Your task to perform on an android device: Open sound settings Image 0: 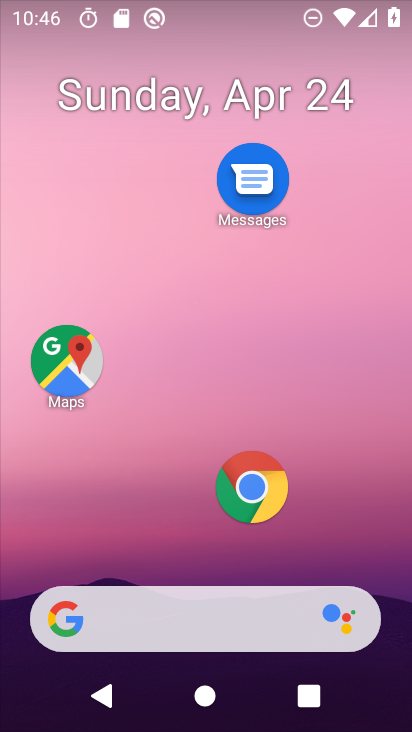
Step 0: drag from (174, 396) to (297, 434)
Your task to perform on an android device: Open sound settings Image 1: 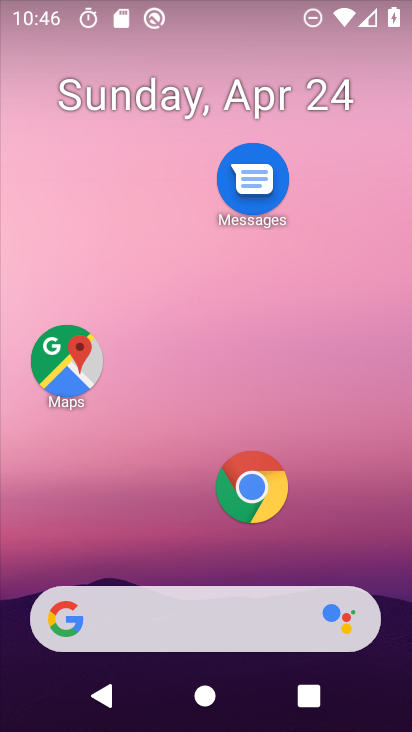
Step 1: drag from (167, 403) to (344, 9)
Your task to perform on an android device: Open sound settings Image 2: 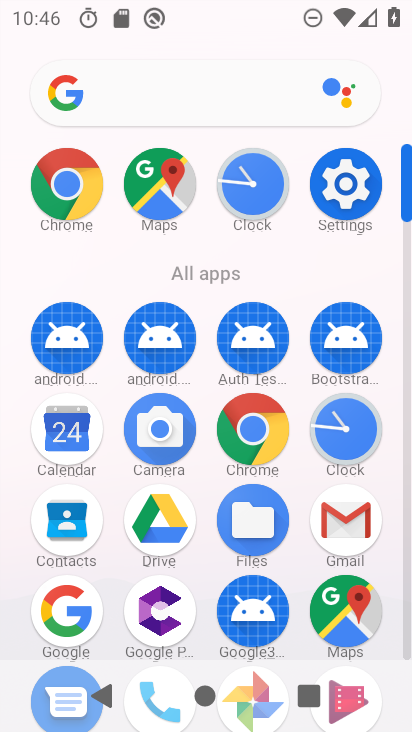
Step 2: click (345, 354)
Your task to perform on an android device: Open sound settings Image 3: 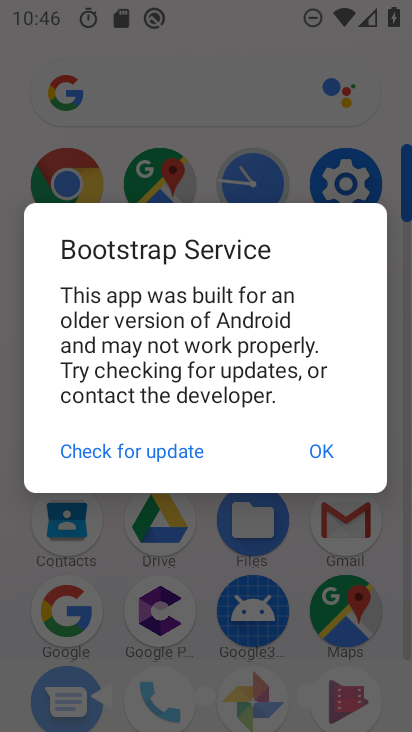
Step 3: click (360, 203)
Your task to perform on an android device: Open sound settings Image 4: 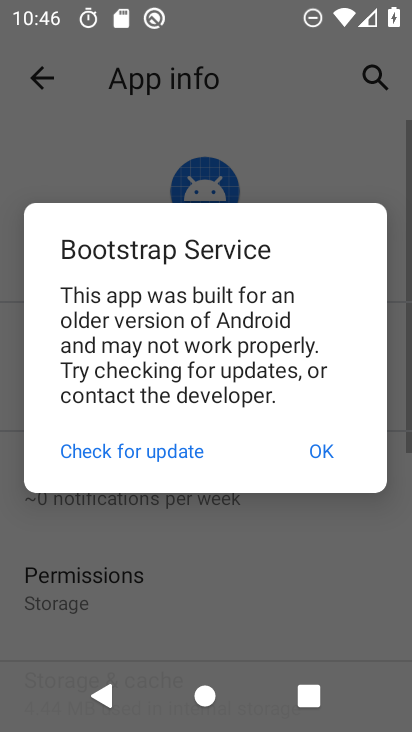
Step 4: press home button
Your task to perform on an android device: Open sound settings Image 5: 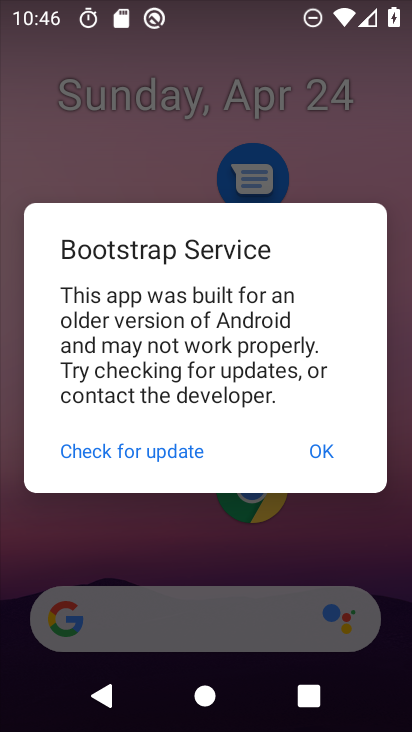
Step 5: click (321, 440)
Your task to perform on an android device: Open sound settings Image 6: 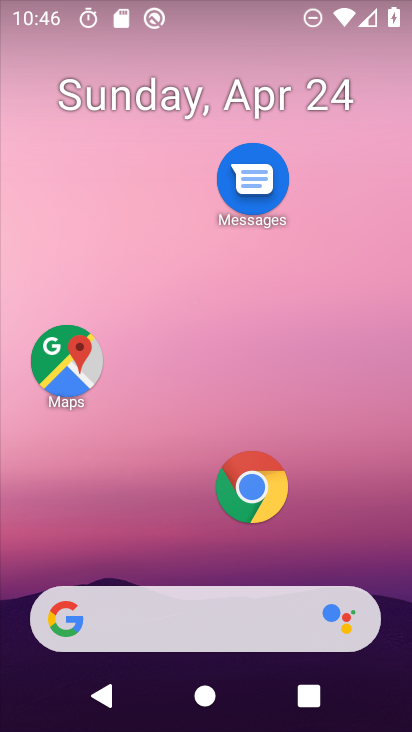
Step 6: drag from (161, 510) to (306, 3)
Your task to perform on an android device: Open sound settings Image 7: 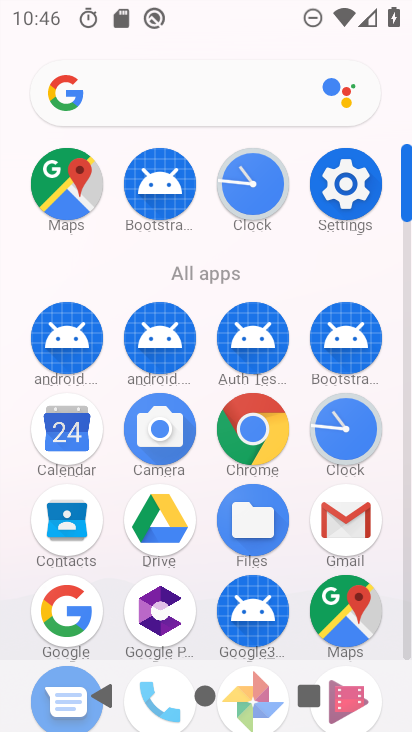
Step 7: click (353, 168)
Your task to perform on an android device: Open sound settings Image 8: 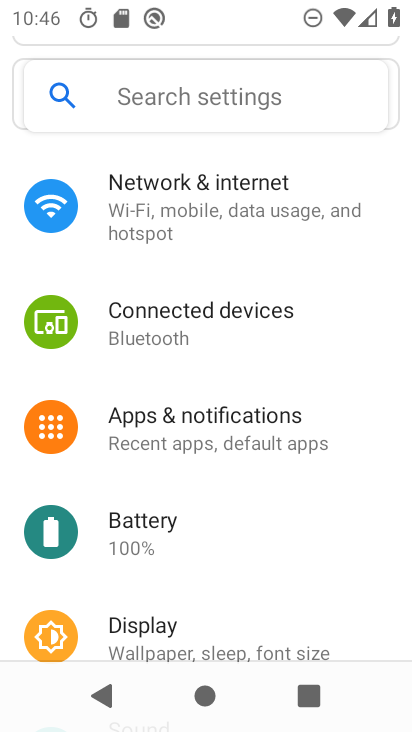
Step 8: drag from (188, 555) to (307, 145)
Your task to perform on an android device: Open sound settings Image 9: 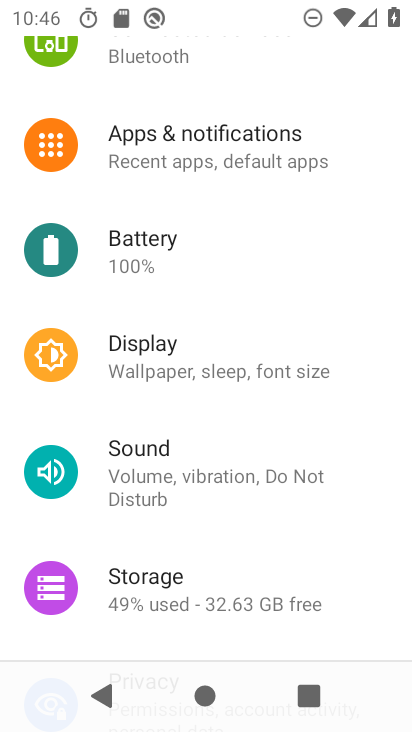
Step 9: click (165, 476)
Your task to perform on an android device: Open sound settings Image 10: 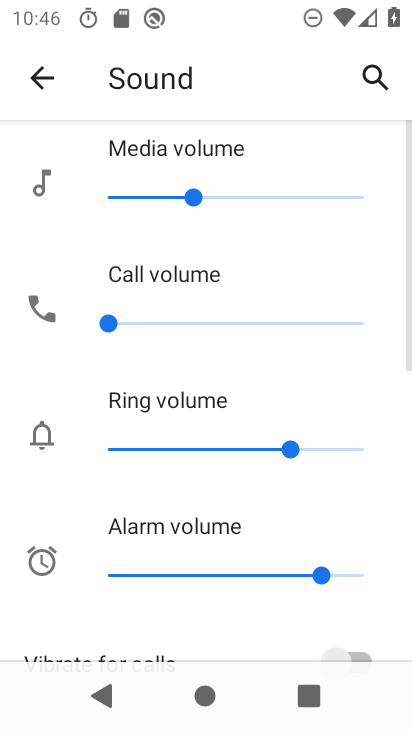
Step 10: task complete